Your task to perform on an android device: change text size in settings app Image 0: 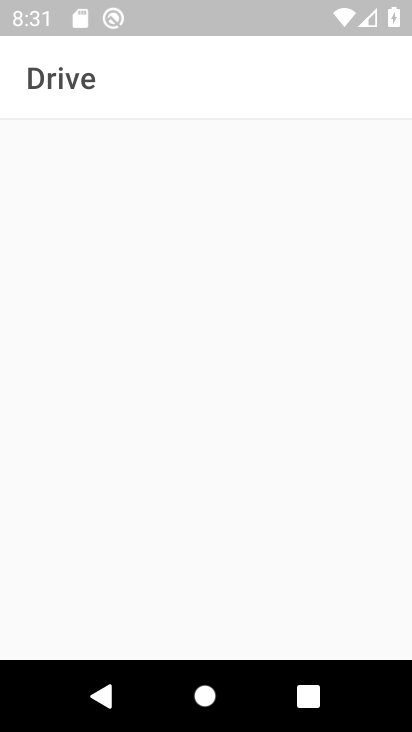
Step 0: press home button
Your task to perform on an android device: change text size in settings app Image 1: 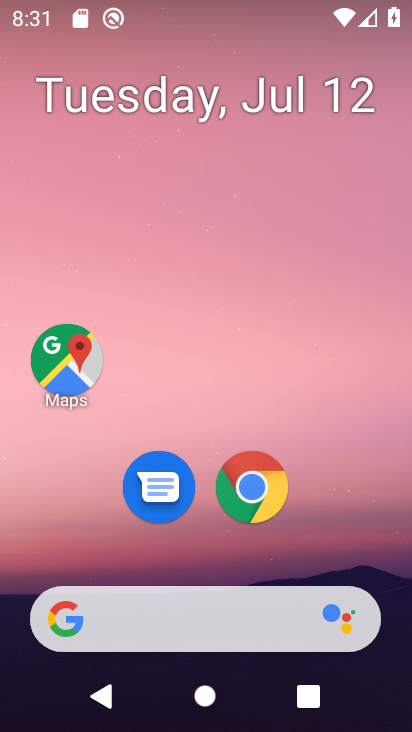
Step 1: drag from (256, 663) to (379, 3)
Your task to perform on an android device: change text size in settings app Image 2: 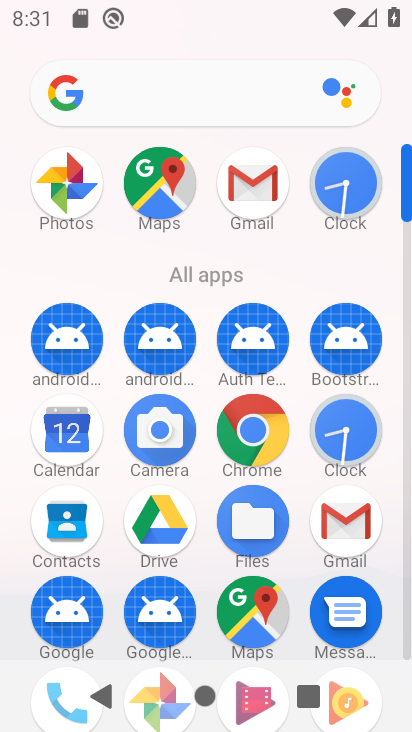
Step 2: drag from (296, 486) to (302, 101)
Your task to perform on an android device: change text size in settings app Image 3: 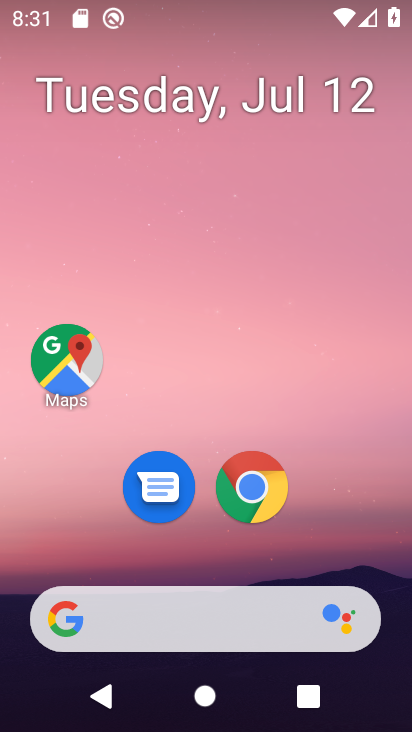
Step 3: drag from (202, 676) to (240, 85)
Your task to perform on an android device: change text size in settings app Image 4: 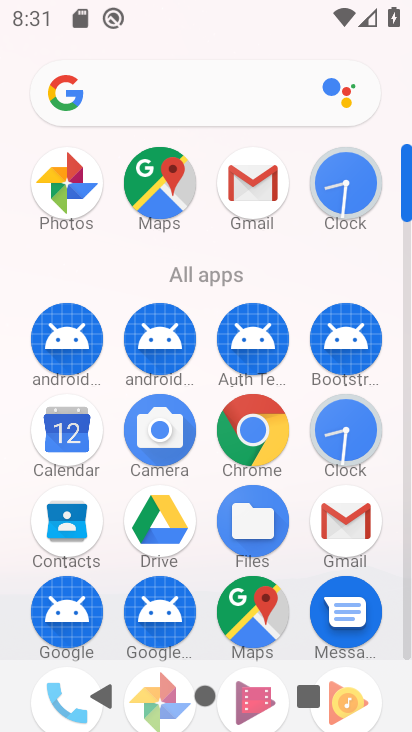
Step 4: drag from (132, 452) to (163, 76)
Your task to perform on an android device: change text size in settings app Image 5: 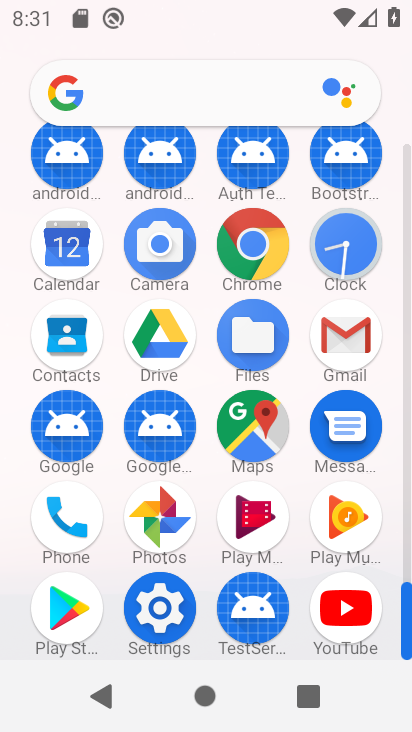
Step 5: drag from (220, 524) to (268, 217)
Your task to perform on an android device: change text size in settings app Image 6: 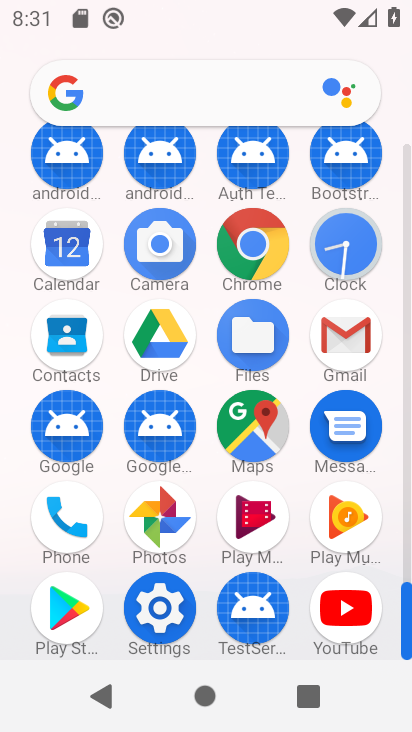
Step 6: click (156, 607)
Your task to perform on an android device: change text size in settings app Image 7: 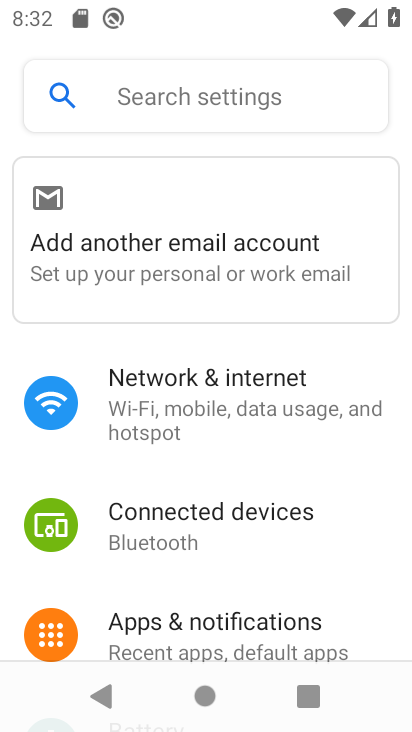
Step 7: drag from (219, 538) to (155, 127)
Your task to perform on an android device: change text size in settings app Image 8: 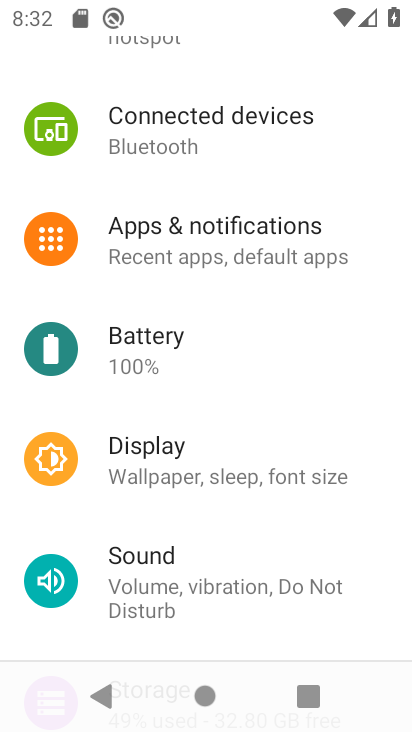
Step 8: drag from (214, 448) to (217, 248)
Your task to perform on an android device: change text size in settings app Image 9: 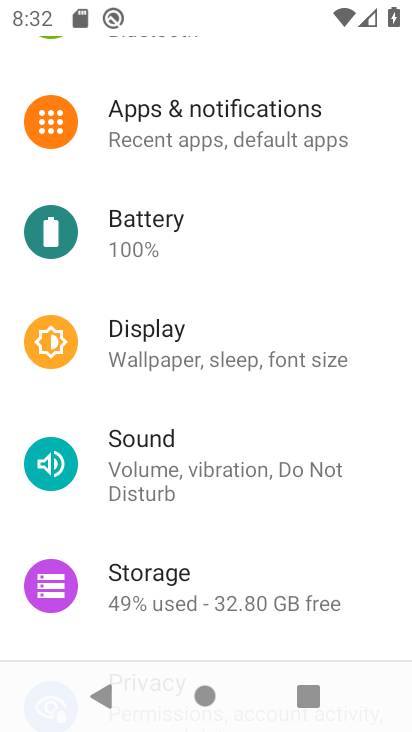
Step 9: drag from (248, 209) to (169, 484)
Your task to perform on an android device: change text size in settings app Image 10: 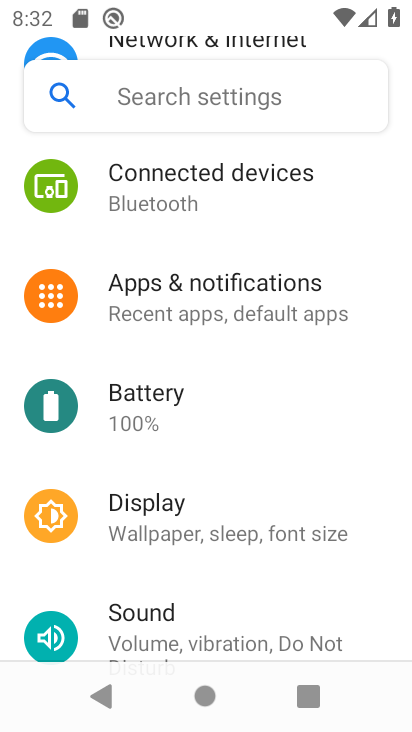
Step 10: click (213, 515)
Your task to perform on an android device: change text size in settings app Image 11: 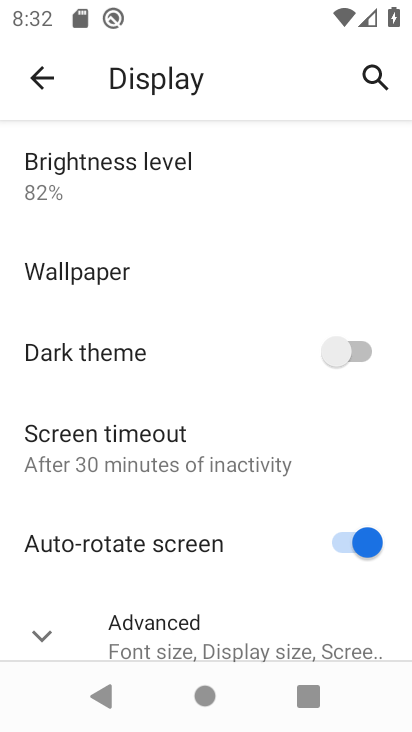
Step 11: click (168, 632)
Your task to perform on an android device: change text size in settings app Image 12: 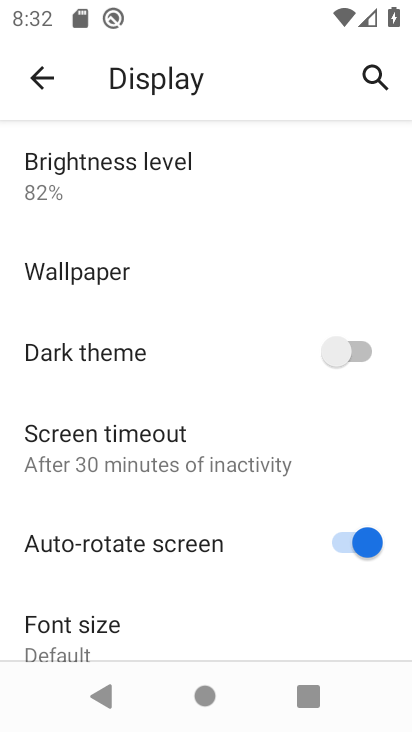
Step 12: drag from (178, 507) to (233, 212)
Your task to perform on an android device: change text size in settings app Image 13: 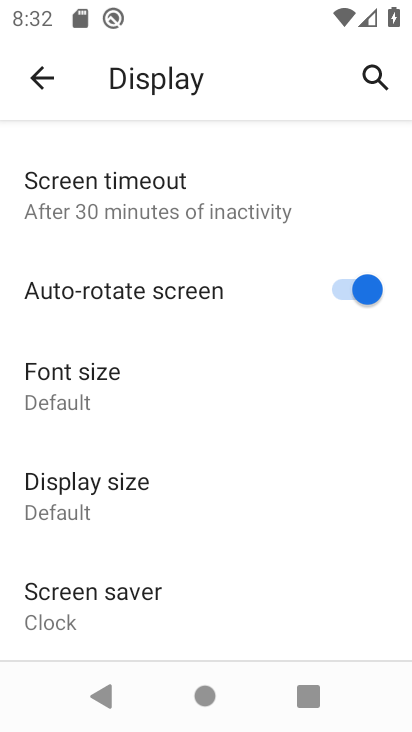
Step 13: click (109, 395)
Your task to perform on an android device: change text size in settings app Image 14: 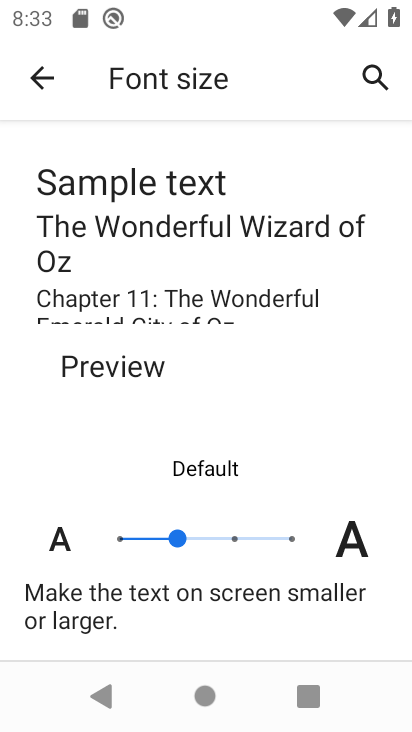
Step 14: click (226, 532)
Your task to perform on an android device: change text size in settings app Image 15: 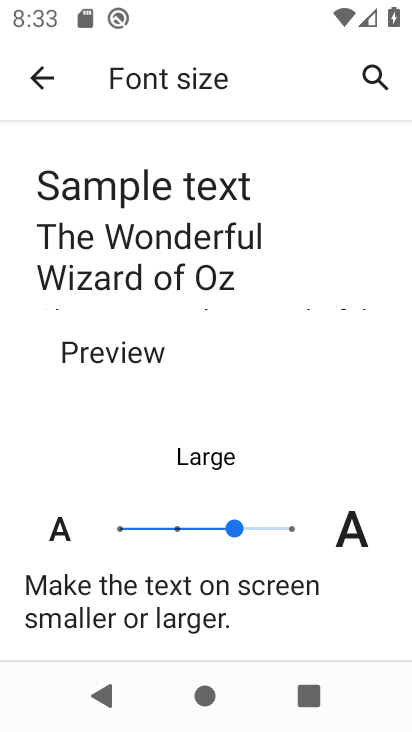
Step 15: task complete